Your task to perform on an android device: turn on translation in the chrome app Image 0: 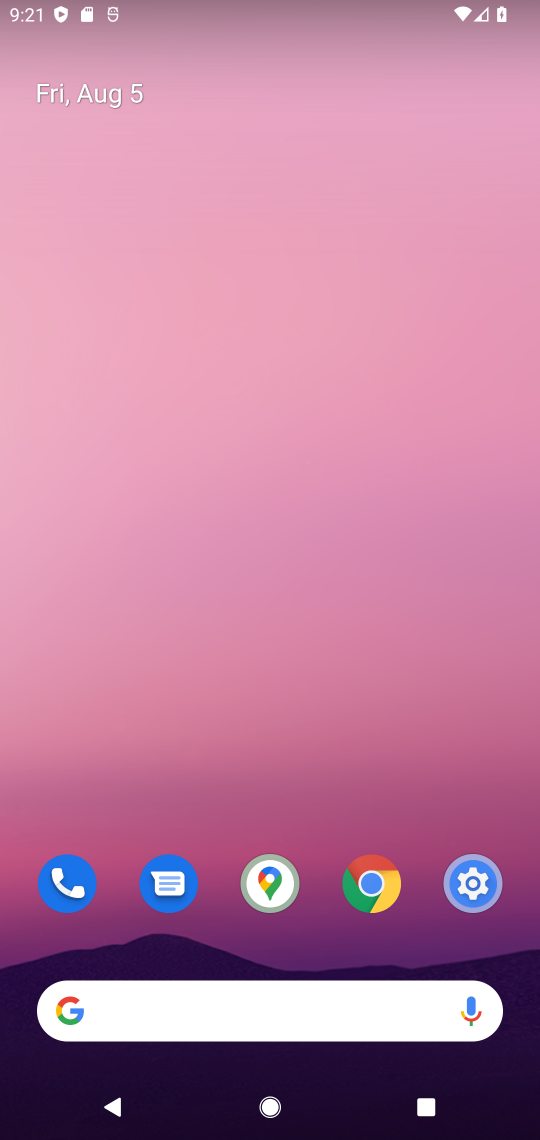
Step 0: click (367, 877)
Your task to perform on an android device: turn on translation in the chrome app Image 1: 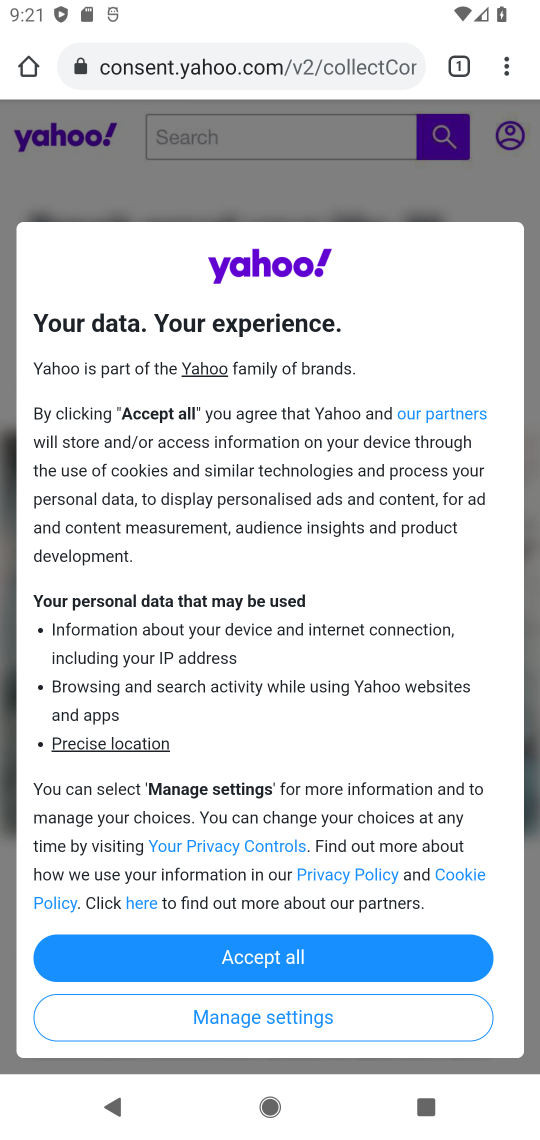
Step 1: drag from (505, 65) to (349, 784)
Your task to perform on an android device: turn on translation in the chrome app Image 2: 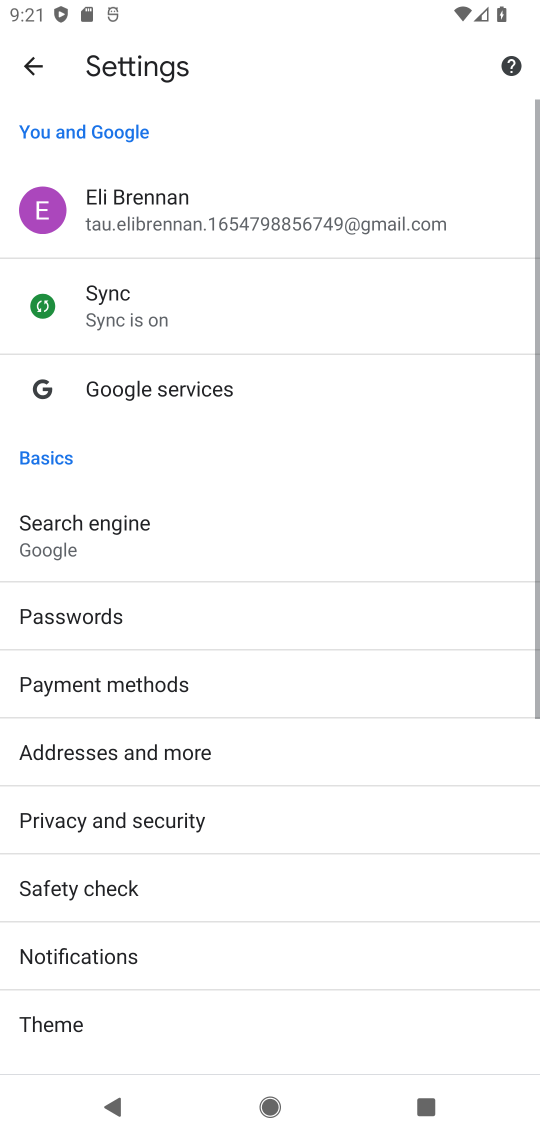
Step 2: drag from (228, 946) to (447, 70)
Your task to perform on an android device: turn on translation in the chrome app Image 3: 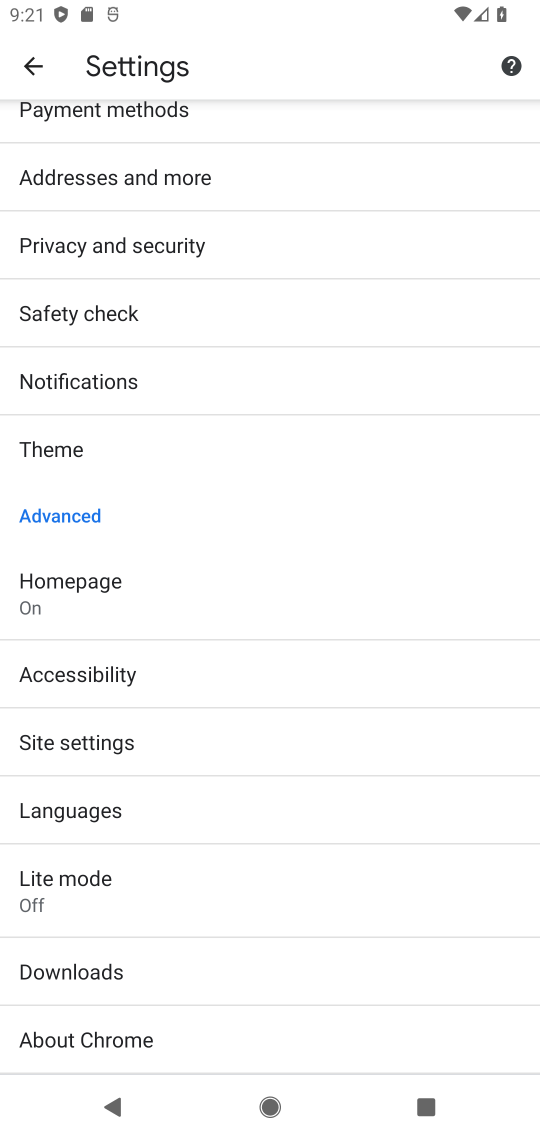
Step 3: click (141, 823)
Your task to perform on an android device: turn on translation in the chrome app Image 4: 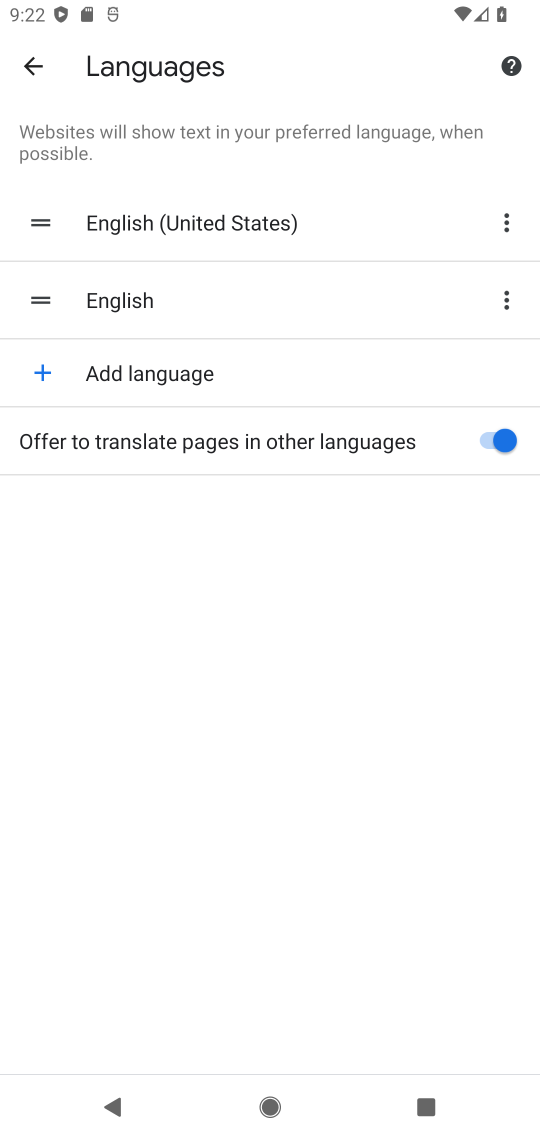
Step 4: task complete